Your task to perform on an android device: Find coffee shops on Maps Image 0: 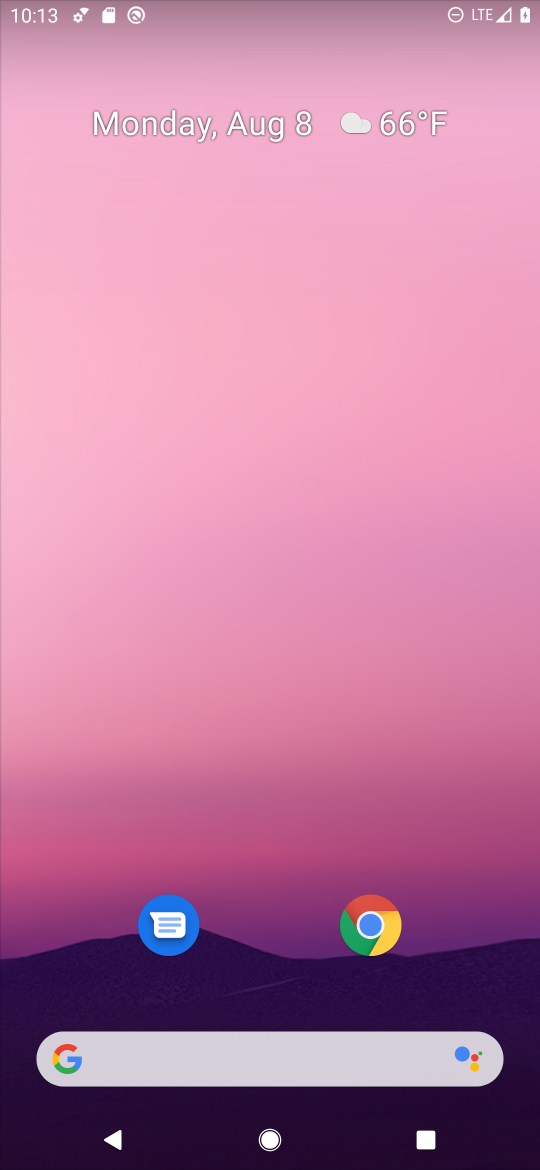
Step 0: drag from (233, 965) to (262, 51)
Your task to perform on an android device: Find coffee shops on Maps Image 1: 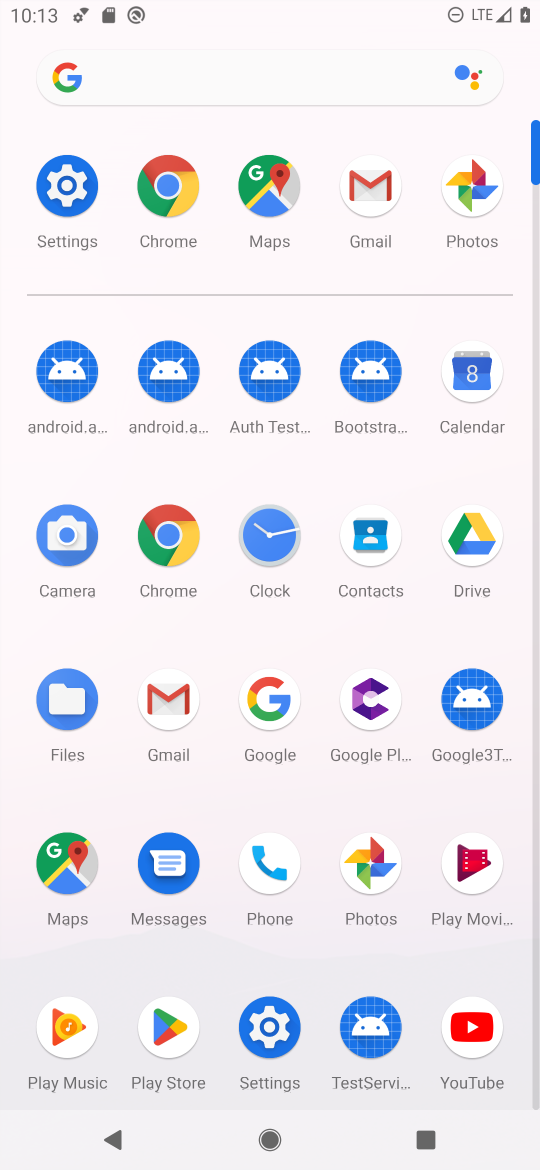
Step 1: click (81, 856)
Your task to perform on an android device: Find coffee shops on Maps Image 2: 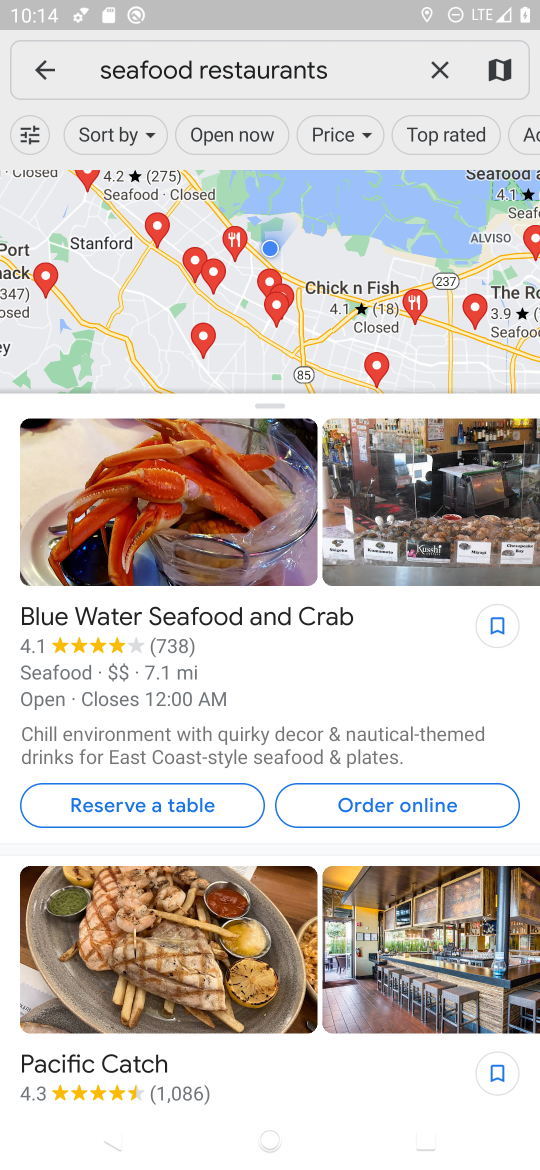
Step 2: click (446, 71)
Your task to perform on an android device: Find coffee shops on Maps Image 3: 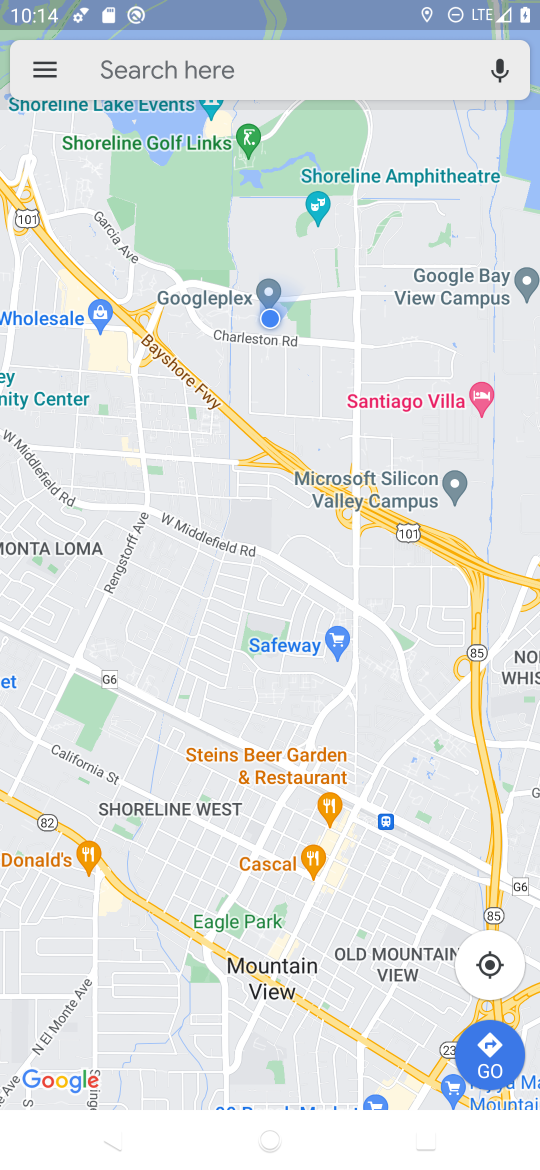
Step 3: click (446, 71)
Your task to perform on an android device: Find coffee shops on Maps Image 4: 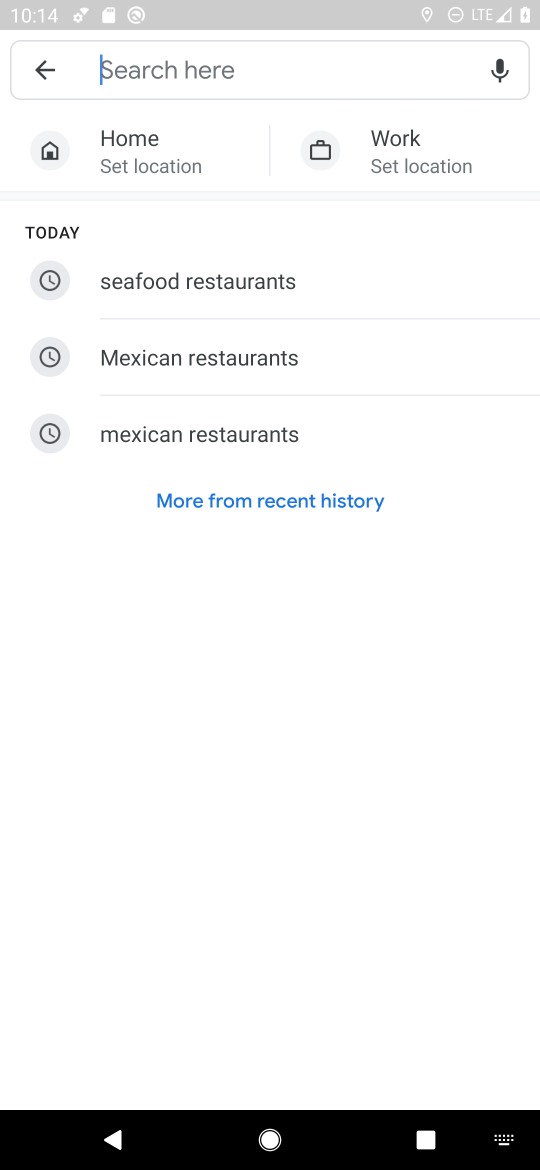
Step 4: type "coffee shops"
Your task to perform on an android device: Find coffee shops on Maps Image 5: 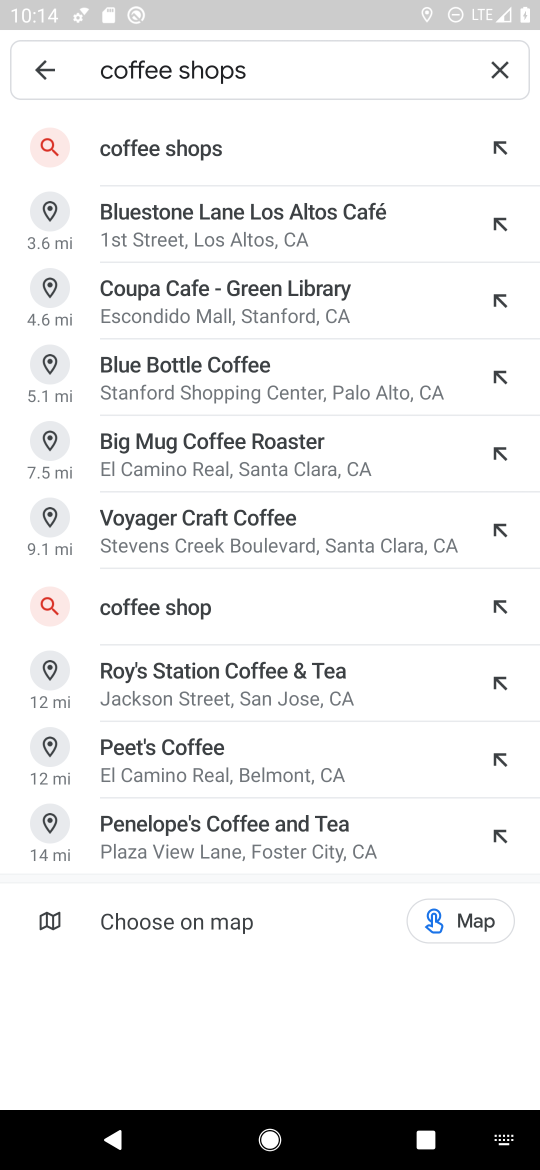
Step 5: click (297, 149)
Your task to perform on an android device: Find coffee shops on Maps Image 6: 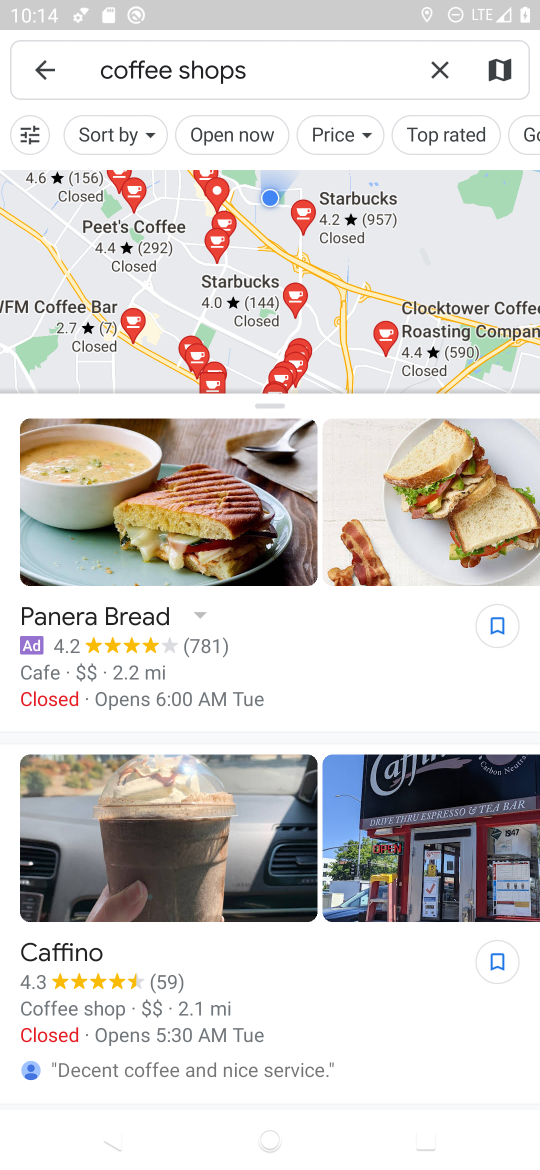
Step 6: task complete